Your task to perform on an android device: find snoozed emails in the gmail app Image 0: 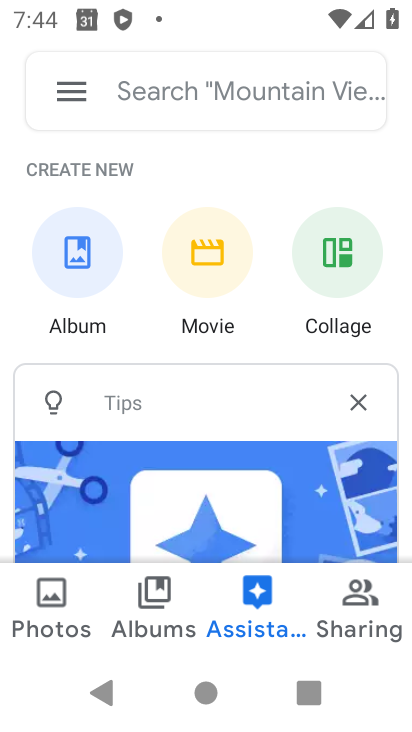
Step 0: press home button
Your task to perform on an android device: find snoozed emails in the gmail app Image 1: 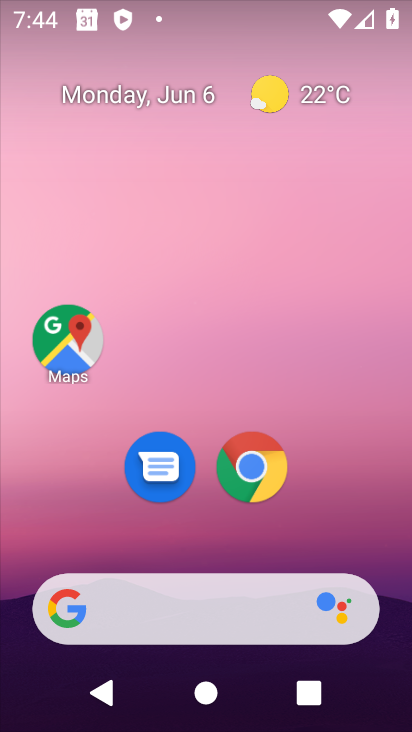
Step 1: drag from (353, 544) to (342, 132)
Your task to perform on an android device: find snoozed emails in the gmail app Image 2: 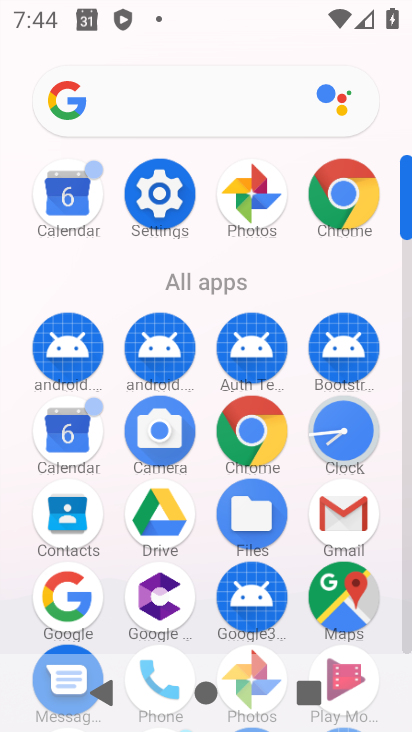
Step 2: click (349, 515)
Your task to perform on an android device: find snoozed emails in the gmail app Image 3: 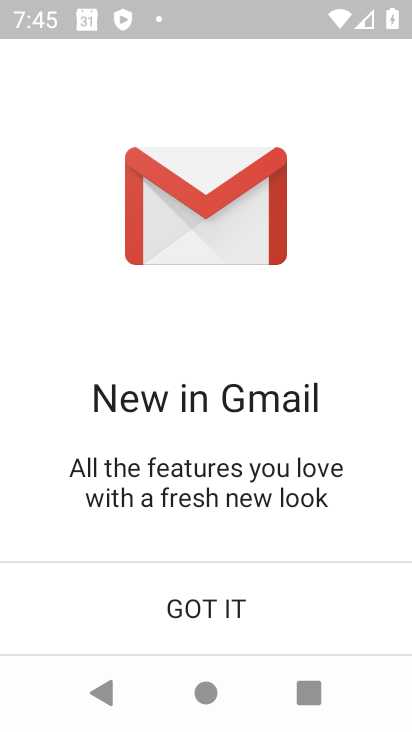
Step 3: click (241, 618)
Your task to perform on an android device: find snoozed emails in the gmail app Image 4: 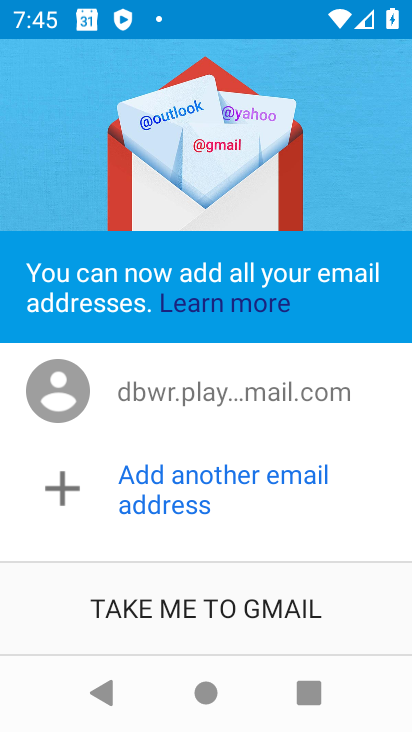
Step 4: click (241, 618)
Your task to perform on an android device: find snoozed emails in the gmail app Image 5: 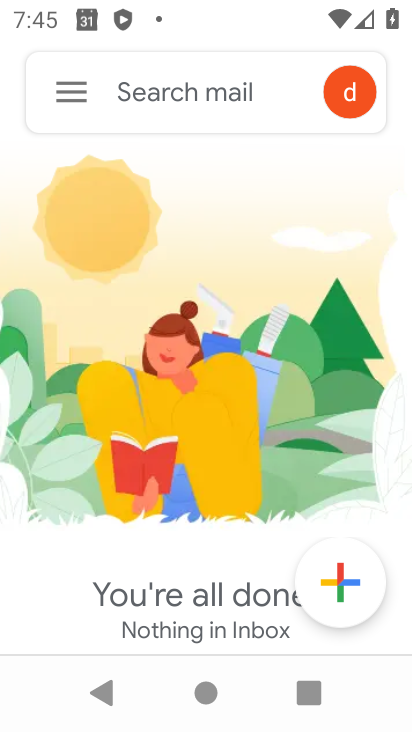
Step 5: click (83, 96)
Your task to perform on an android device: find snoozed emails in the gmail app Image 6: 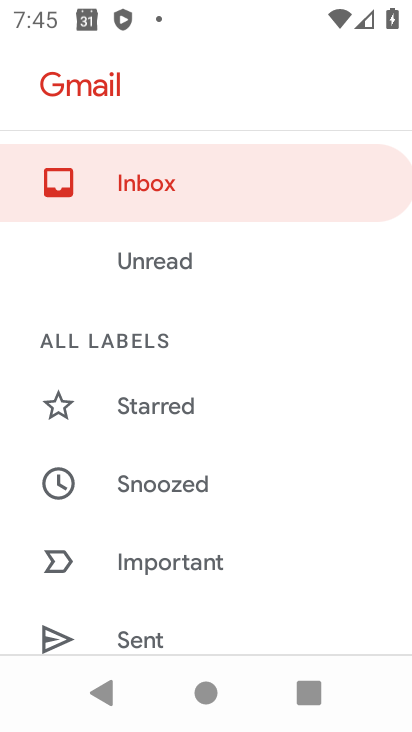
Step 6: drag from (324, 481) to (325, 336)
Your task to perform on an android device: find snoozed emails in the gmail app Image 7: 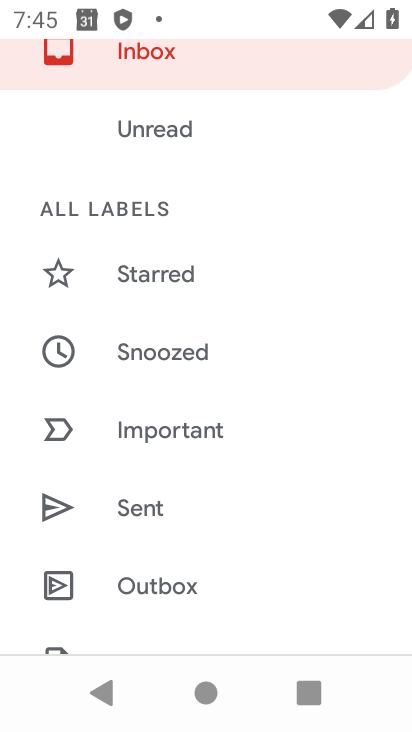
Step 7: click (208, 362)
Your task to perform on an android device: find snoozed emails in the gmail app Image 8: 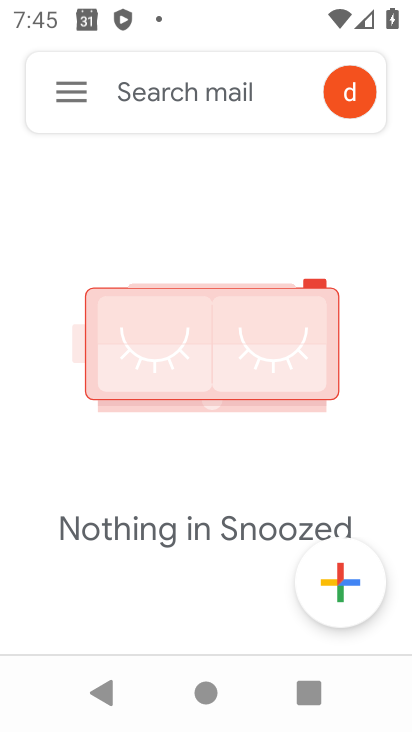
Step 8: task complete